Your task to perform on an android device: set the stopwatch Image 0: 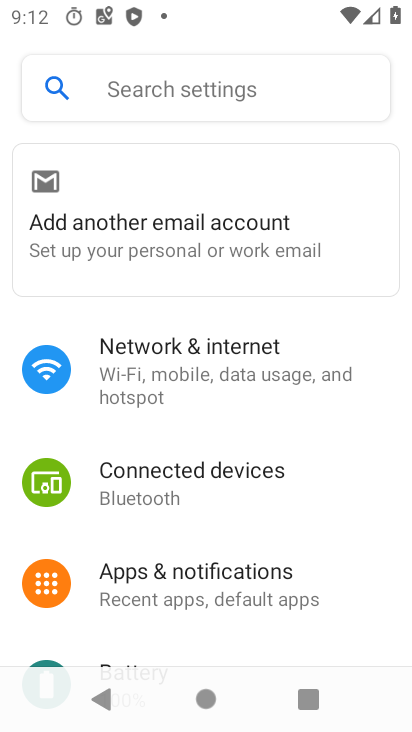
Step 0: press home button
Your task to perform on an android device: set the stopwatch Image 1: 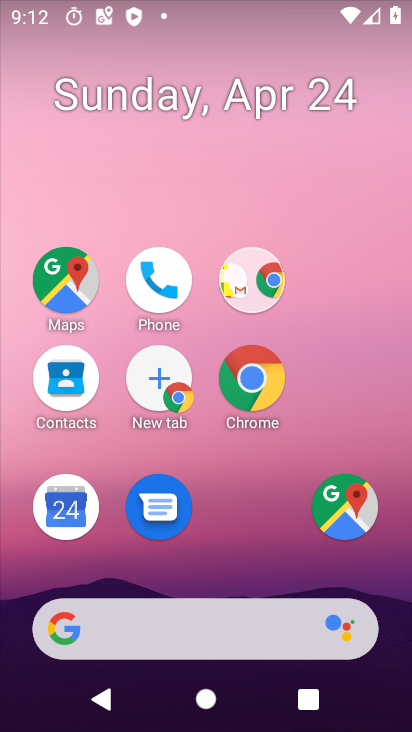
Step 1: drag from (264, 704) to (151, 105)
Your task to perform on an android device: set the stopwatch Image 2: 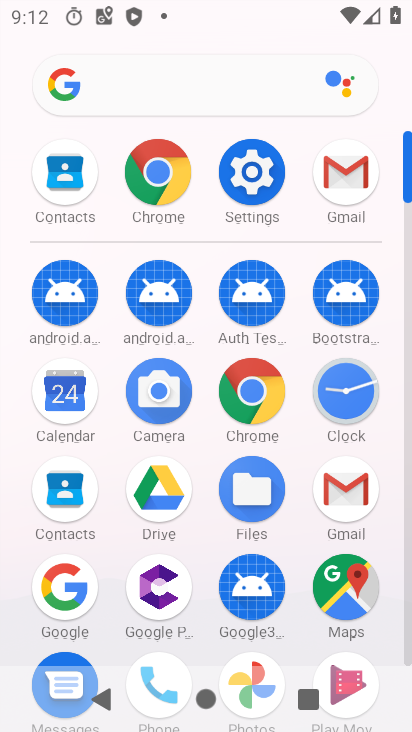
Step 2: click (341, 399)
Your task to perform on an android device: set the stopwatch Image 3: 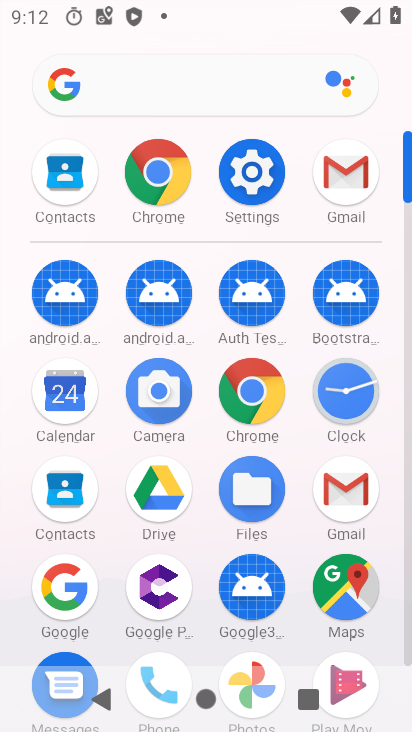
Step 3: click (341, 399)
Your task to perform on an android device: set the stopwatch Image 4: 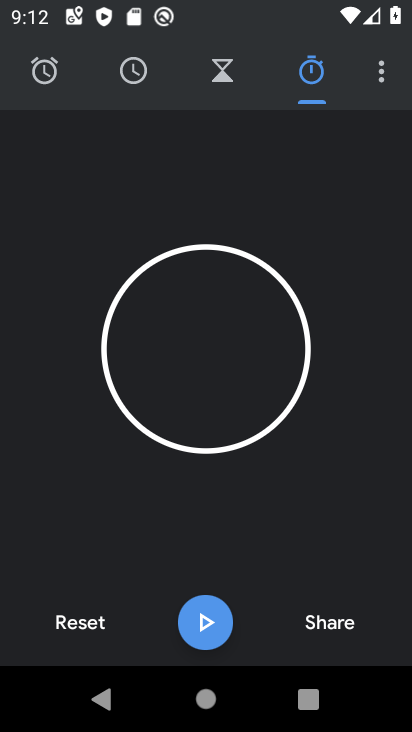
Step 4: click (205, 625)
Your task to perform on an android device: set the stopwatch Image 5: 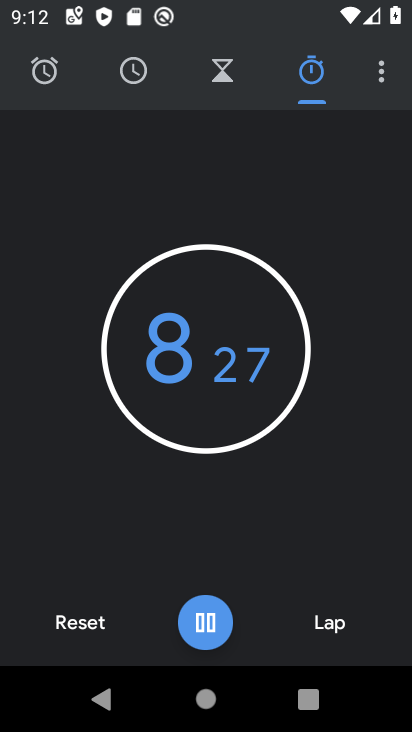
Step 5: click (204, 622)
Your task to perform on an android device: set the stopwatch Image 6: 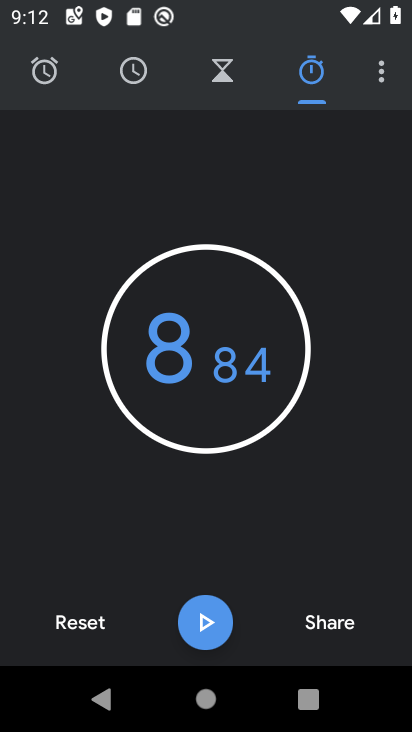
Step 6: task complete